Your task to perform on an android device: Open Chrome and go to the settings page Image 0: 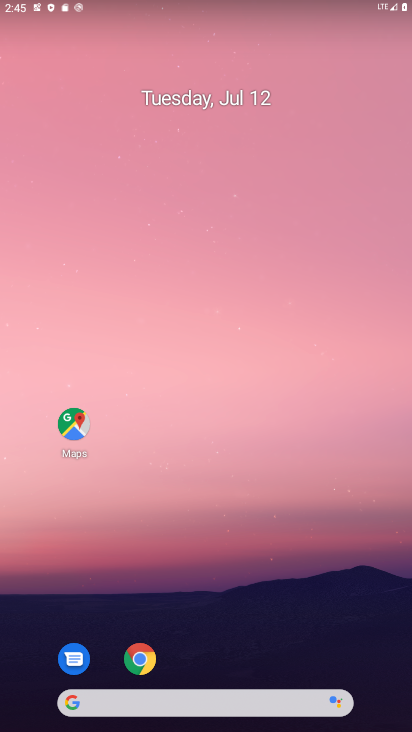
Step 0: click (141, 660)
Your task to perform on an android device: Open Chrome and go to the settings page Image 1: 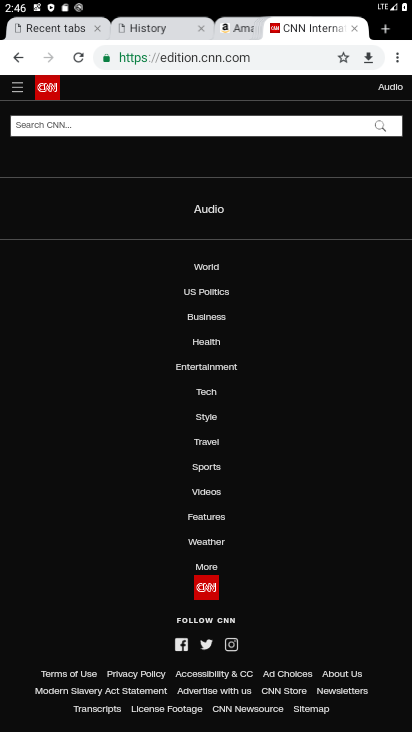
Step 1: click (398, 57)
Your task to perform on an android device: Open Chrome and go to the settings page Image 2: 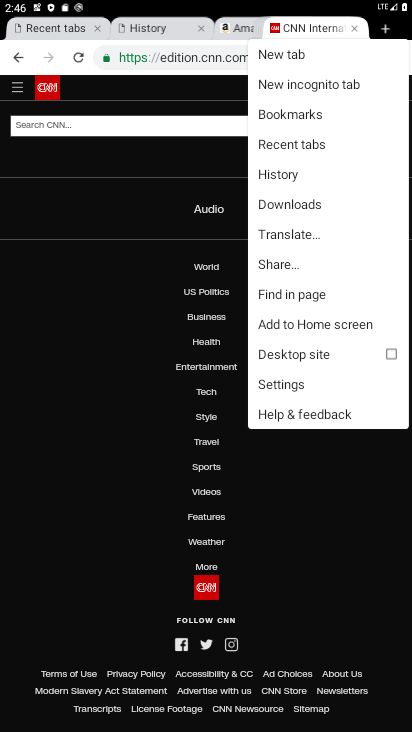
Step 2: click (285, 382)
Your task to perform on an android device: Open Chrome and go to the settings page Image 3: 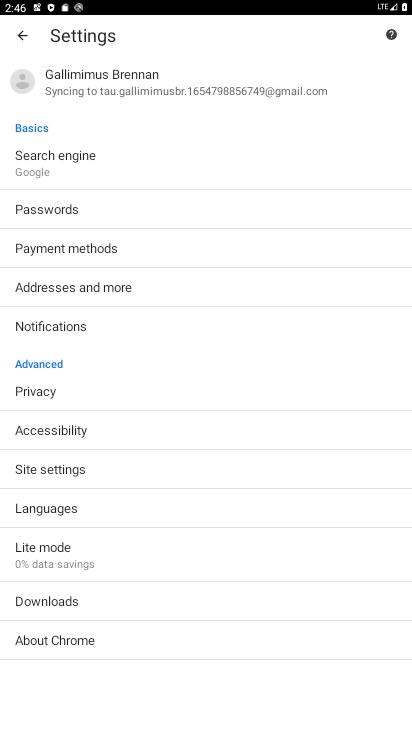
Step 3: task complete